Your task to perform on an android device: Go to calendar. Show me events next week Image 0: 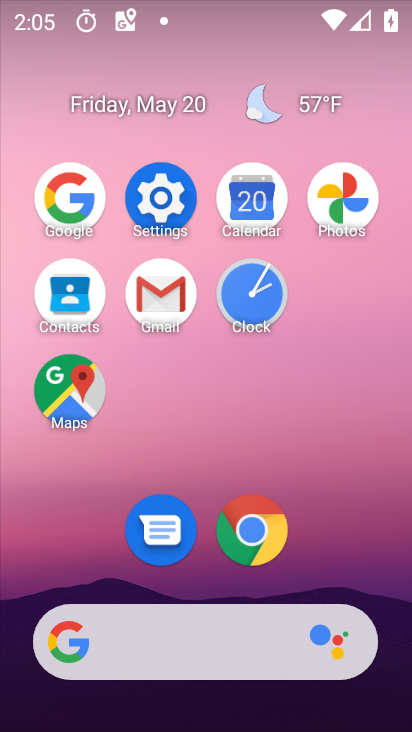
Step 0: click (267, 213)
Your task to perform on an android device: Go to calendar. Show me events next week Image 1: 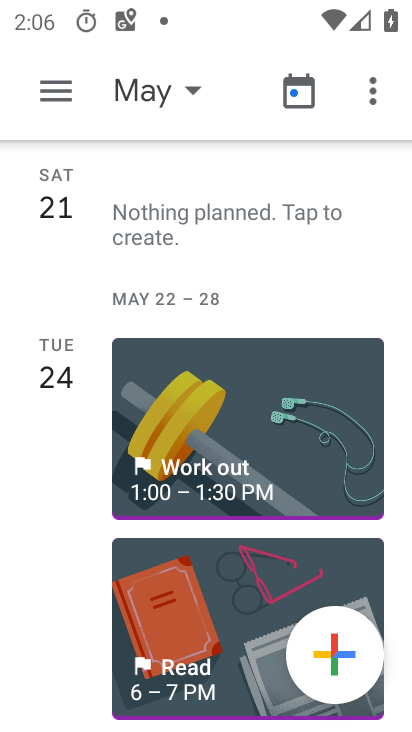
Step 1: click (62, 89)
Your task to perform on an android device: Go to calendar. Show me events next week Image 2: 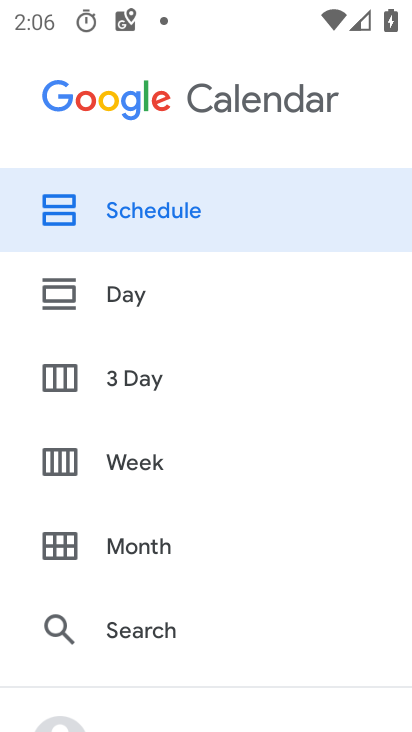
Step 2: click (177, 462)
Your task to perform on an android device: Go to calendar. Show me events next week Image 3: 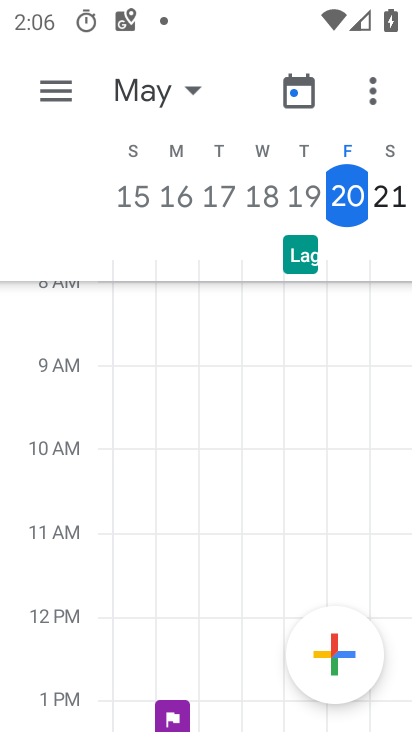
Step 3: task complete